Your task to perform on an android device: open a bookmark in the chrome app Image 0: 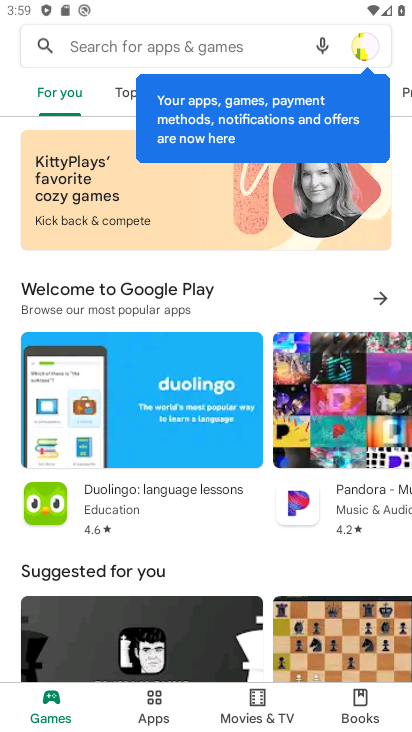
Step 0: press home button
Your task to perform on an android device: open a bookmark in the chrome app Image 1: 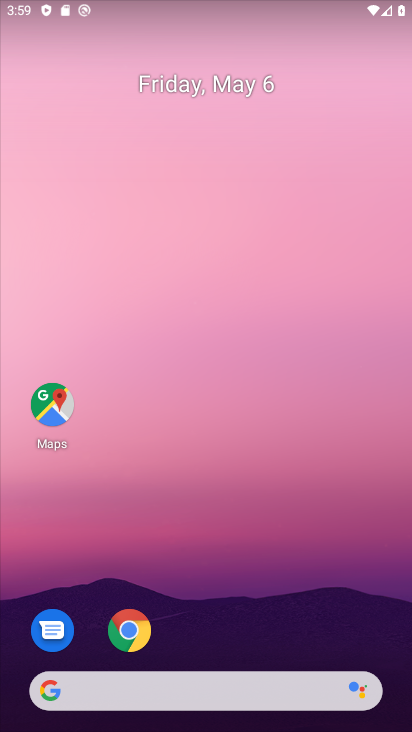
Step 1: drag from (270, 625) to (245, 6)
Your task to perform on an android device: open a bookmark in the chrome app Image 2: 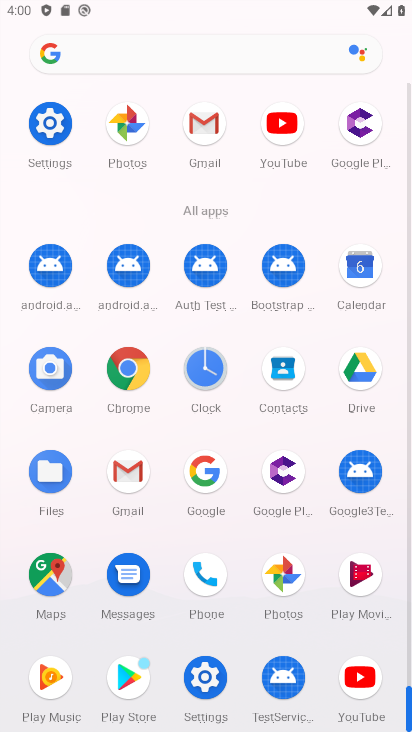
Step 2: click (145, 409)
Your task to perform on an android device: open a bookmark in the chrome app Image 3: 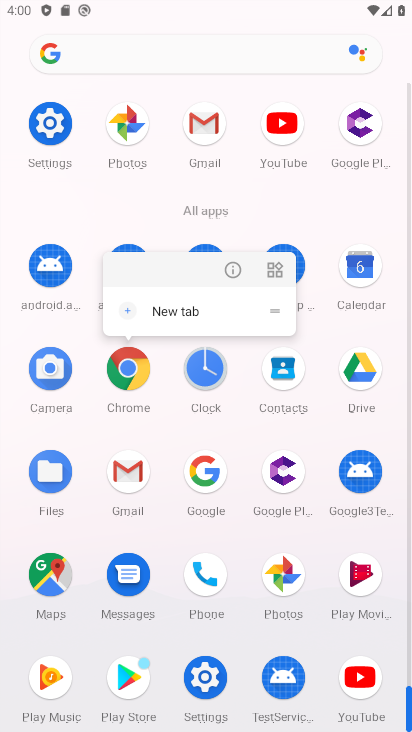
Step 3: click (136, 409)
Your task to perform on an android device: open a bookmark in the chrome app Image 4: 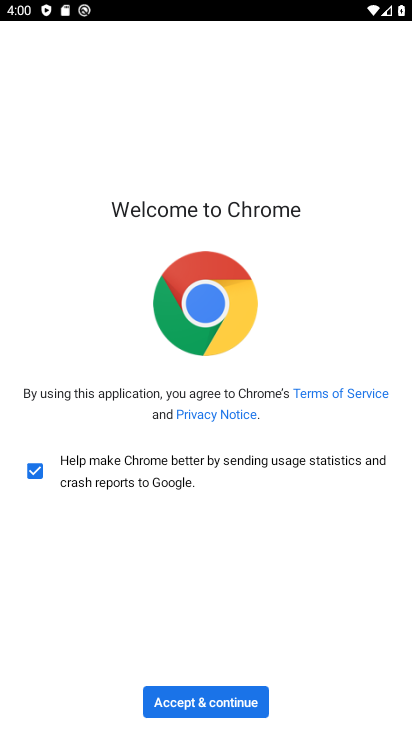
Step 4: click (167, 703)
Your task to perform on an android device: open a bookmark in the chrome app Image 5: 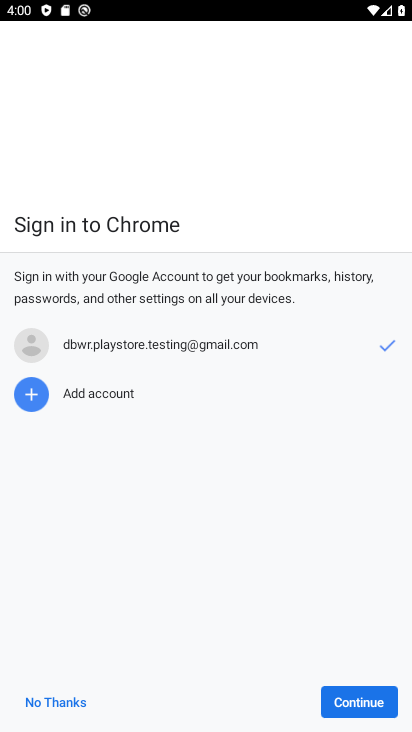
Step 5: click (372, 702)
Your task to perform on an android device: open a bookmark in the chrome app Image 6: 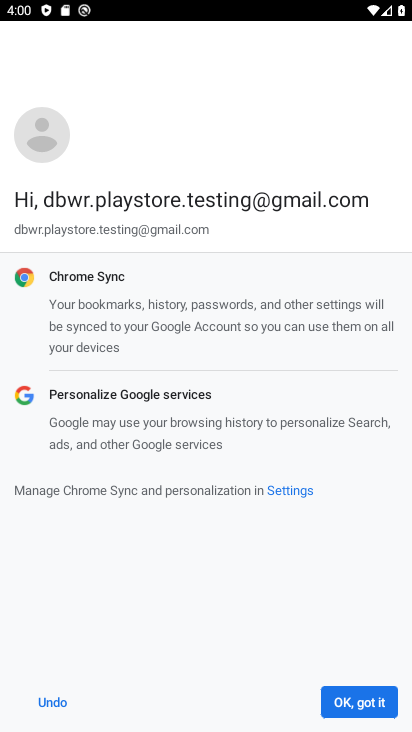
Step 6: click (372, 702)
Your task to perform on an android device: open a bookmark in the chrome app Image 7: 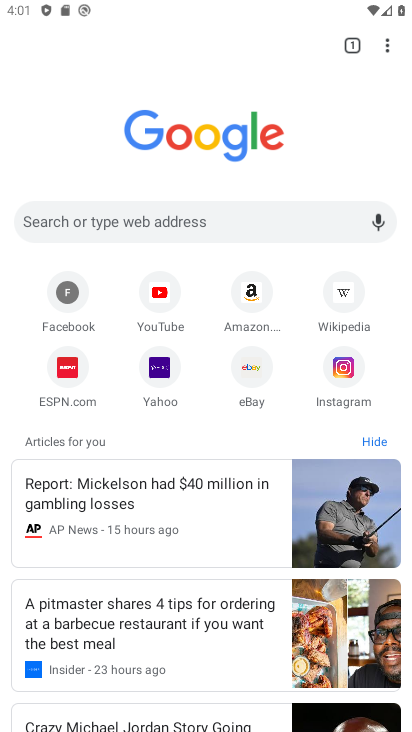
Step 7: click (395, 46)
Your task to perform on an android device: open a bookmark in the chrome app Image 8: 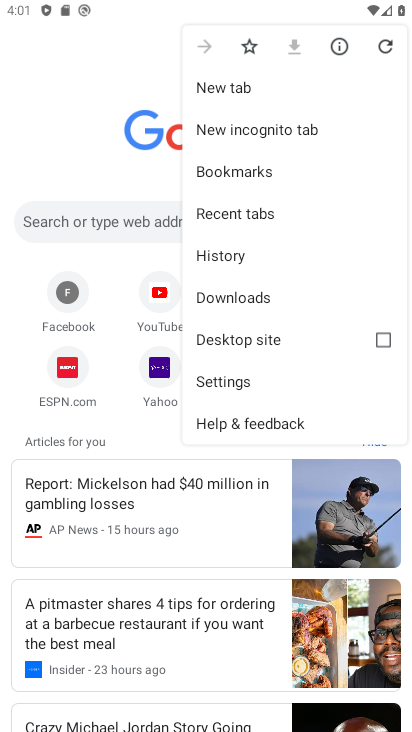
Step 8: click (248, 175)
Your task to perform on an android device: open a bookmark in the chrome app Image 9: 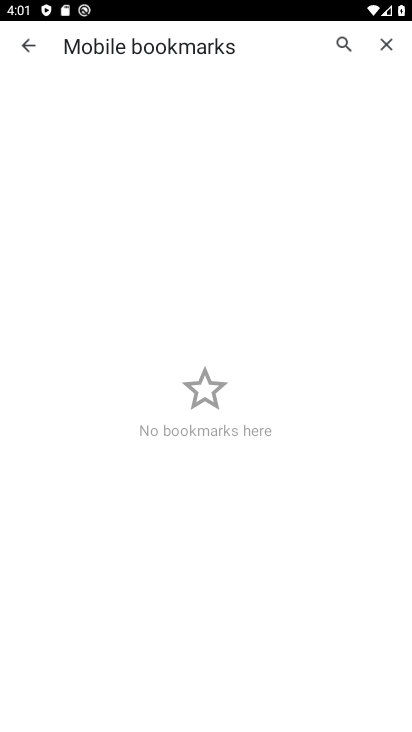
Step 9: task complete